Your task to perform on an android device: Open calendar and show me the fourth week of next month Image 0: 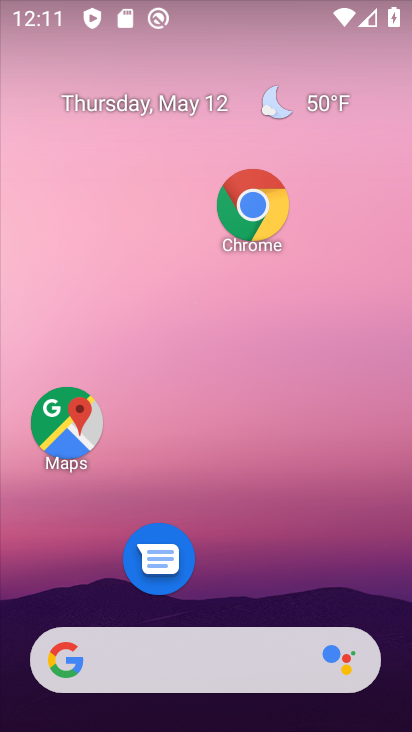
Step 0: drag from (275, 303) to (291, 119)
Your task to perform on an android device: Open calendar and show me the fourth week of next month Image 1: 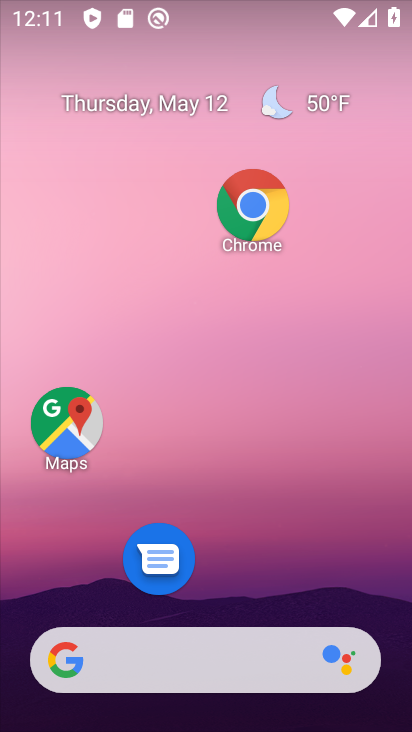
Step 1: drag from (213, 581) to (214, 14)
Your task to perform on an android device: Open calendar and show me the fourth week of next month Image 2: 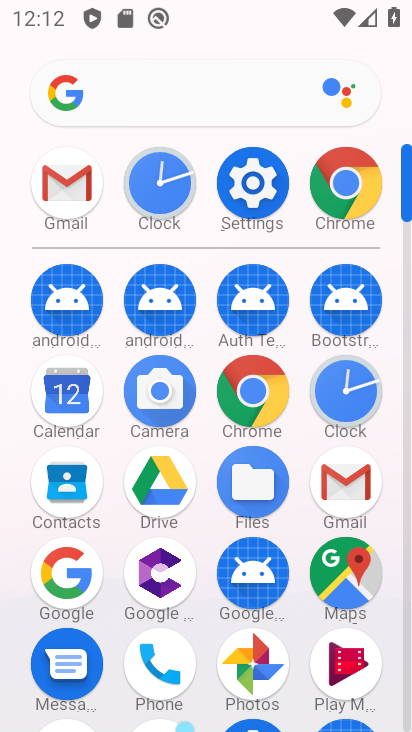
Step 2: click (66, 432)
Your task to perform on an android device: Open calendar and show me the fourth week of next month Image 3: 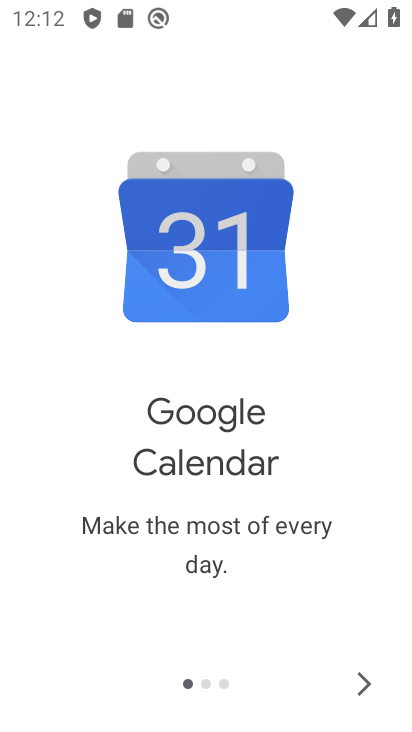
Step 3: click (361, 687)
Your task to perform on an android device: Open calendar and show me the fourth week of next month Image 4: 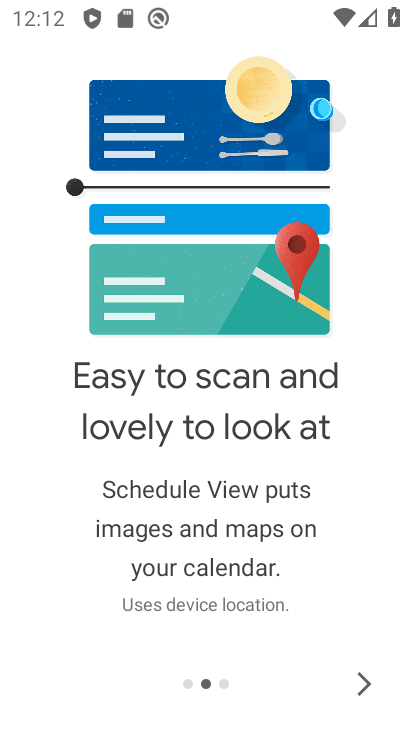
Step 4: click (361, 687)
Your task to perform on an android device: Open calendar and show me the fourth week of next month Image 5: 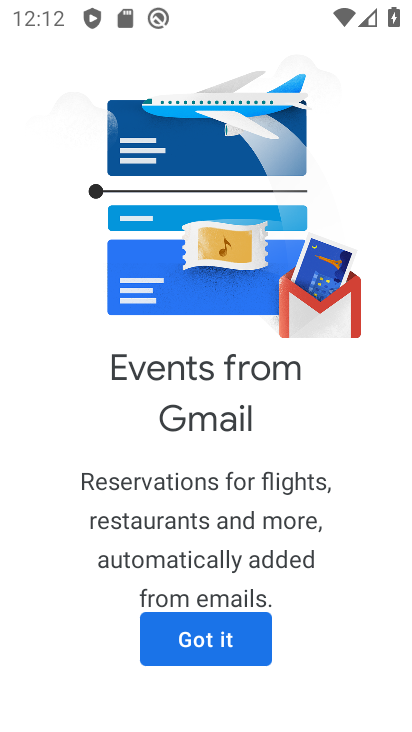
Step 5: click (361, 687)
Your task to perform on an android device: Open calendar and show me the fourth week of next month Image 6: 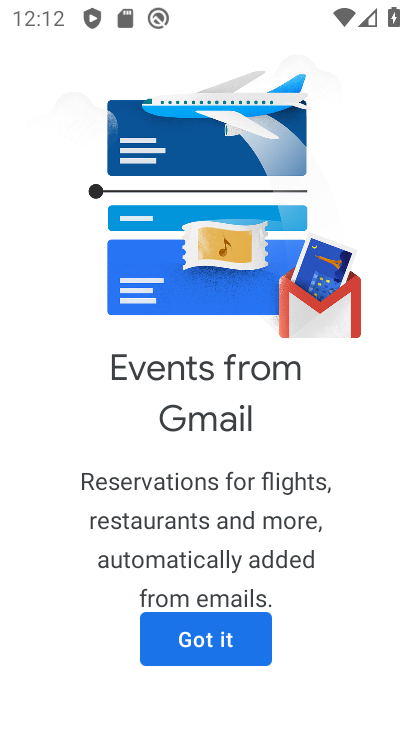
Step 6: click (233, 648)
Your task to perform on an android device: Open calendar and show me the fourth week of next month Image 7: 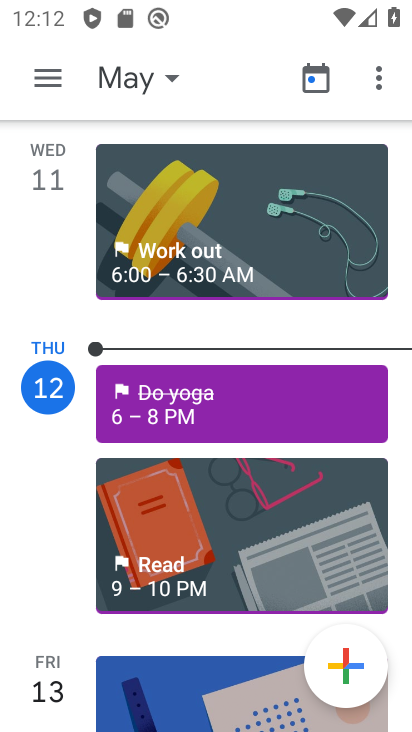
Step 7: click (44, 82)
Your task to perform on an android device: Open calendar and show me the fourth week of next month Image 8: 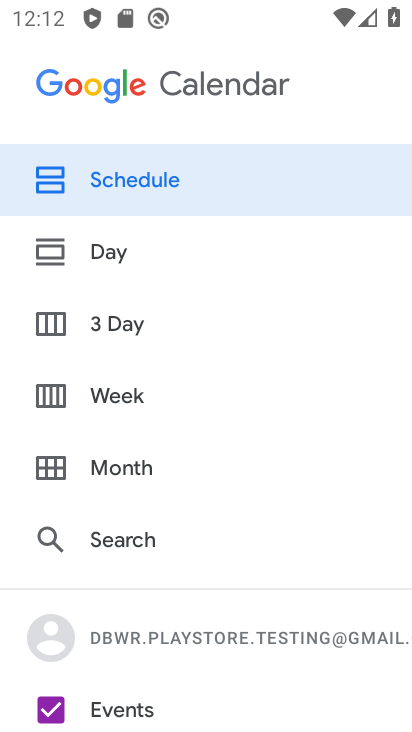
Step 8: click (97, 399)
Your task to perform on an android device: Open calendar and show me the fourth week of next month Image 9: 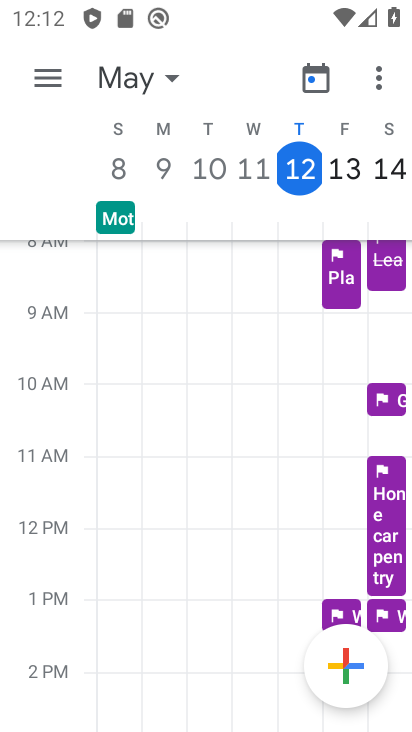
Step 9: click (120, 82)
Your task to perform on an android device: Open calendar and show me the fourth week of next month Image 10: 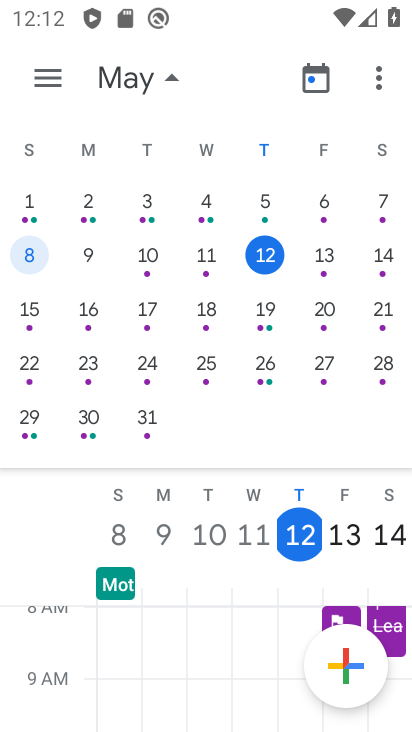
Step 10: drag from (258, 318) to (11, 309)
Your task to perform on an android device: Open calendar and show me the fourth week of next month Image 11: 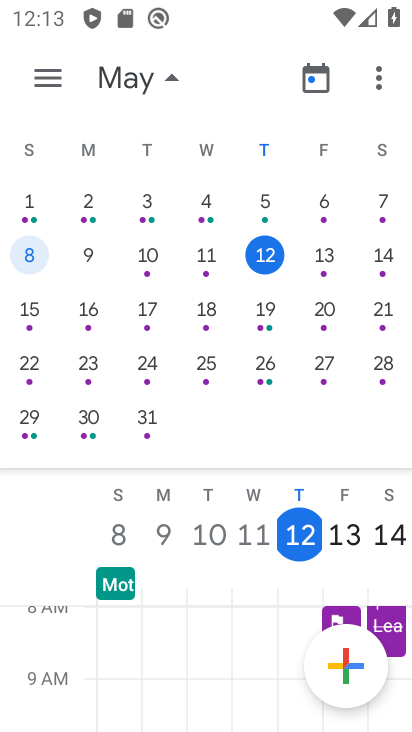
Step 11: drag from (325, 309) to (28, 327)
Your task to perform on an android device: Open calendar and show me the fourth week of next month Image 12: 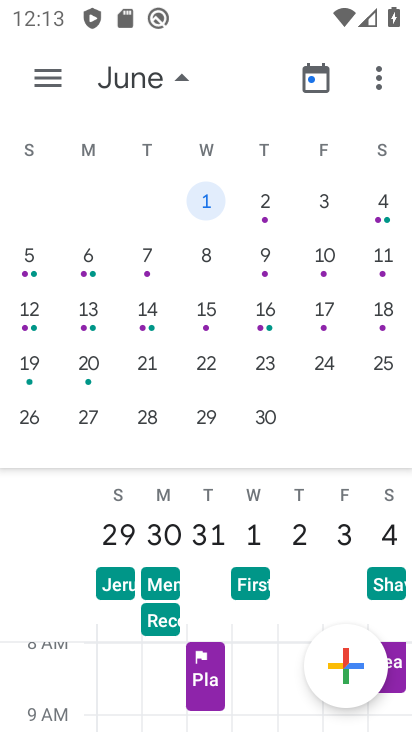
Step 12: click (27, 379)
Your task to perform on an android device: Open calendar and show me the fourth week of next month Image 13: 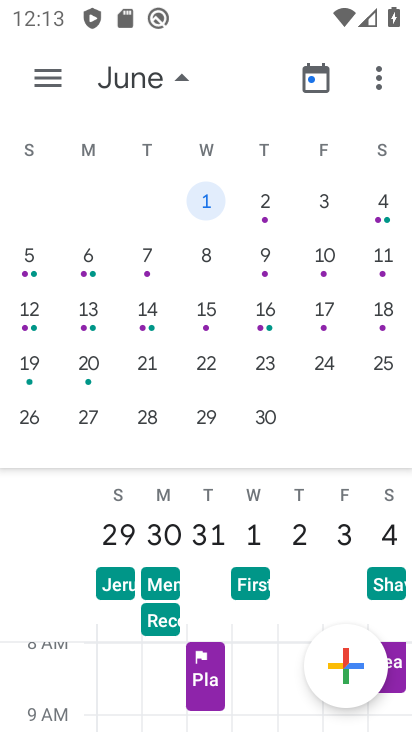
Step 13: click (27, 379)
Your task to perform on an android device: Open calendar and show me the fourth week of next month Image 14: 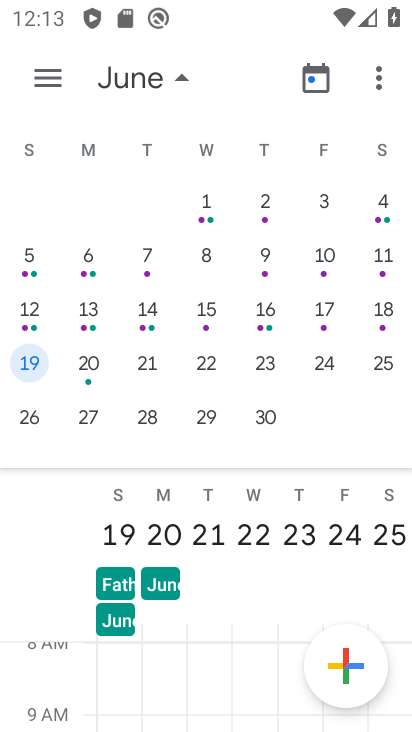
Step 14: task complete